Your task to perform on an android device: turn smart compose on in the gmail app Image 0: 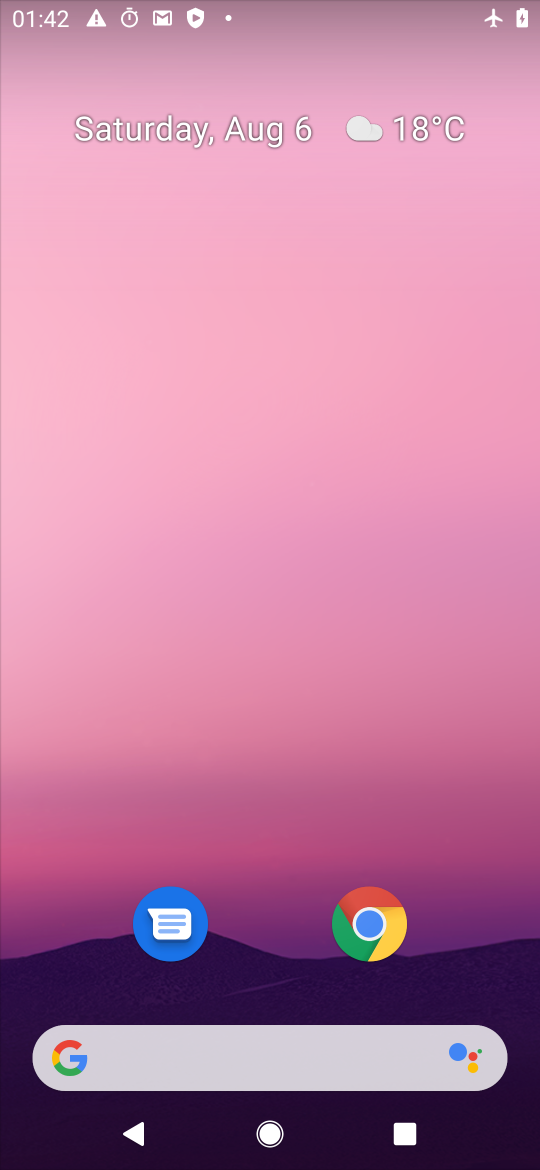
Step 0: drag from (307, 1049) to (377, 63)
Your task to perform on an android device: turn smart compose on in the gmail app Image 1: 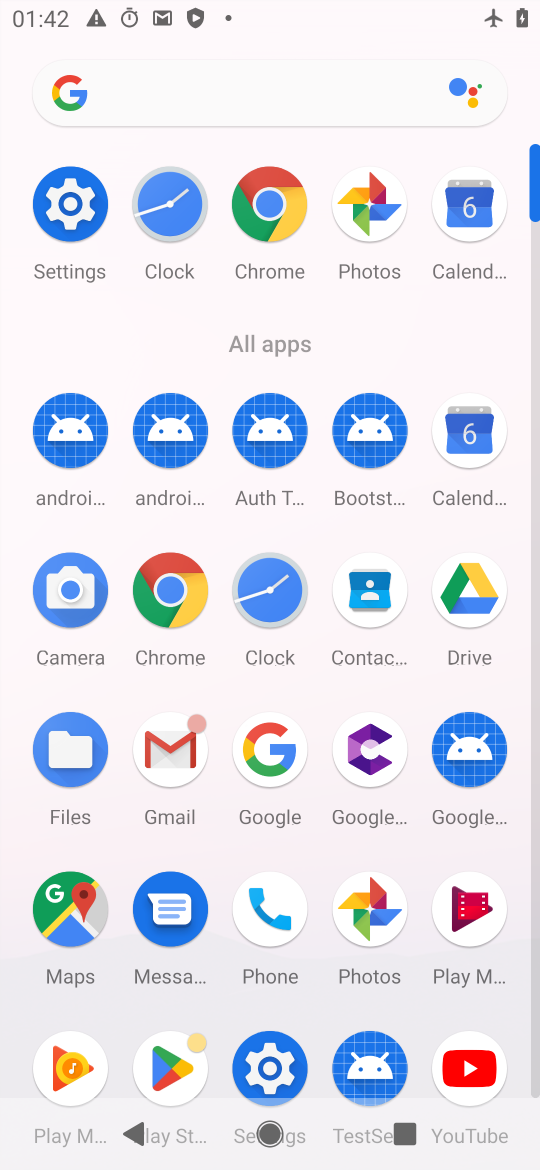
Step 1: click (171, 736)
Your task to perform on an android device: turn smart compose on in the gmail app Image 2: 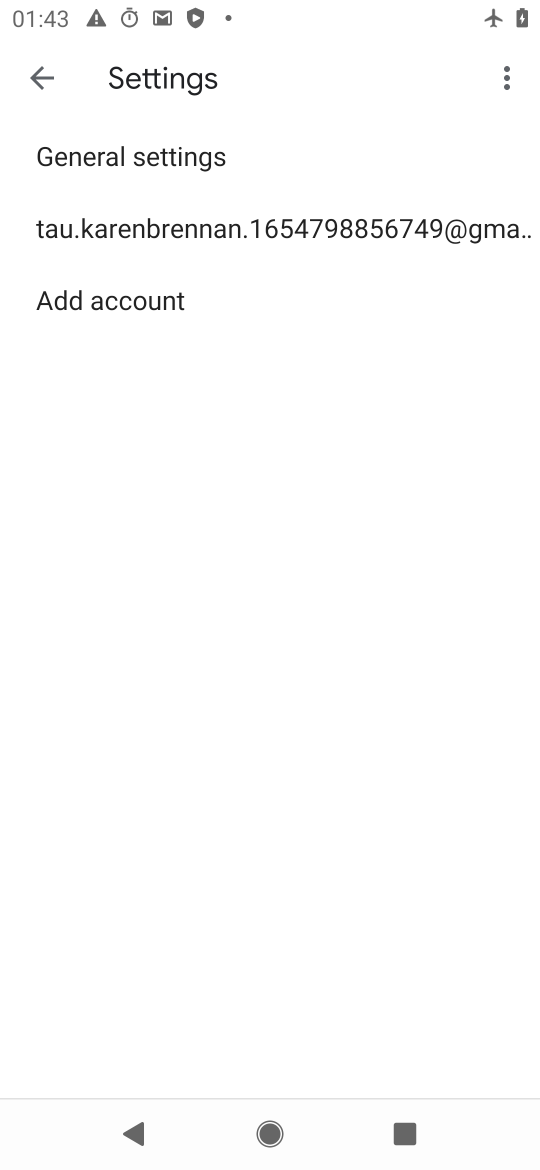
Step 2: click (157, 223)
Your task to perform on an android device: turn smart compose on in the gmail app Image 3: 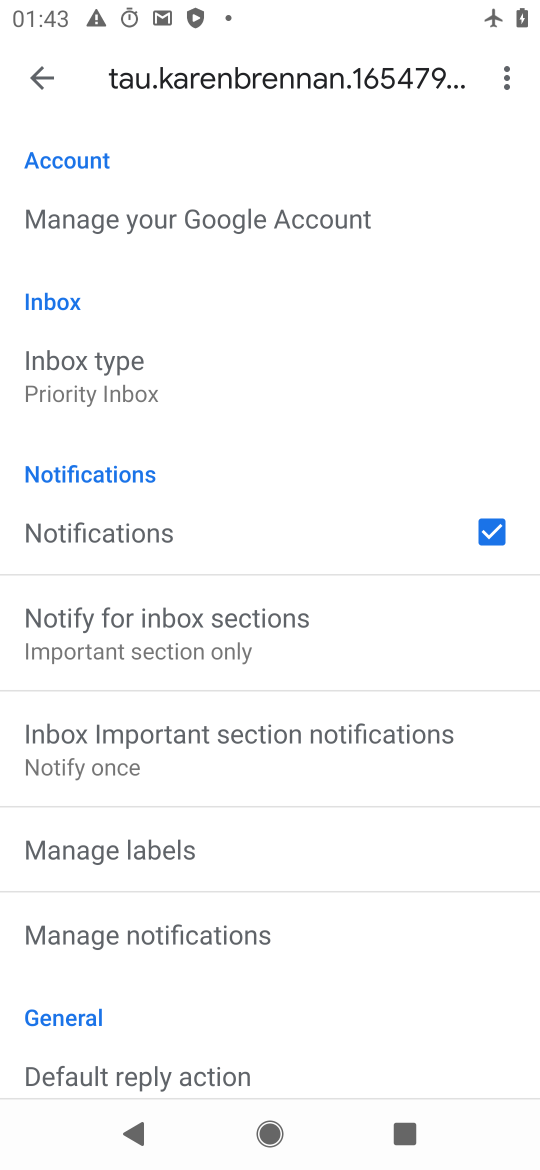
Step 3: task complete